Your task to perform on an android device: empty trash in the gmail app Image 0: 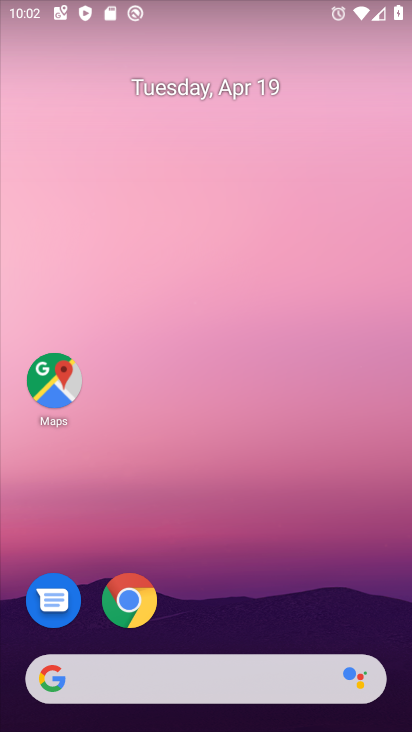
Step 0: drag from (303, 616) to (237, 192)
Your task to perform on an android device: empty trash in the gmail app Image 1: 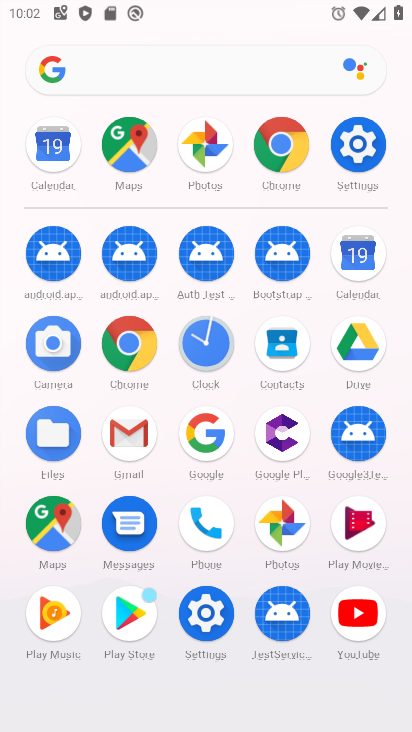
Step 1: click (127, 432)
Your task to perform on an android device: empty trash in the gmail app Image 2: 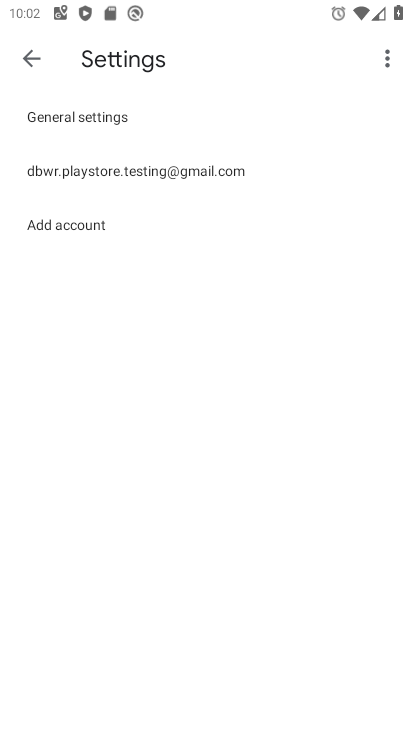
Step 2: click (27, 54)
Your task to perform on an android device: empty trash in the gmail app Image 3: 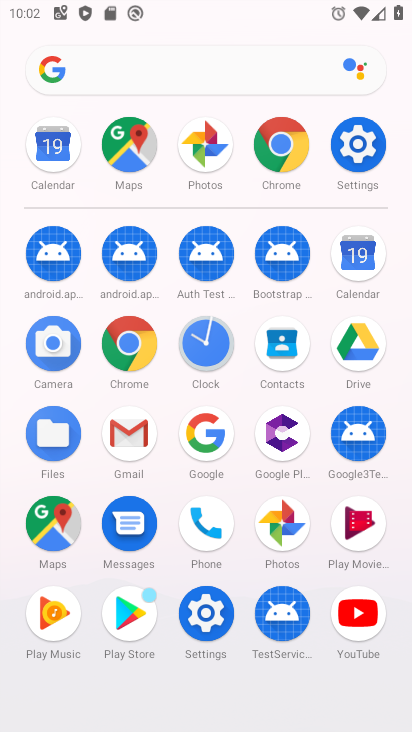
Step 3: click (133, 432)
Your task to perform on an android device: empty trash in the gmail app Image 4: 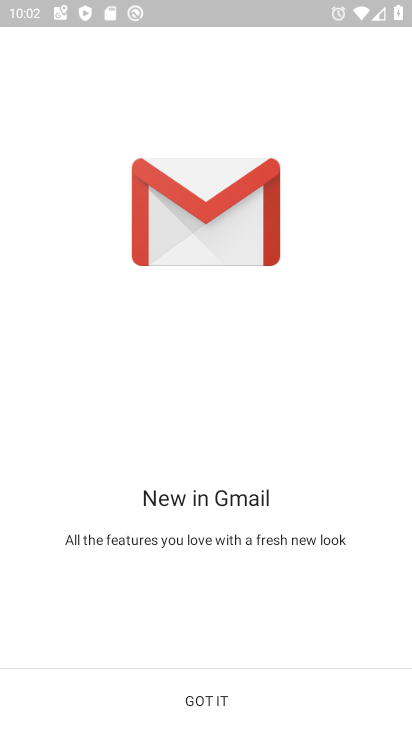
Step 4: click (250, 701)
Your task to perform on an android device: empty trash in the gmail app Image 5: 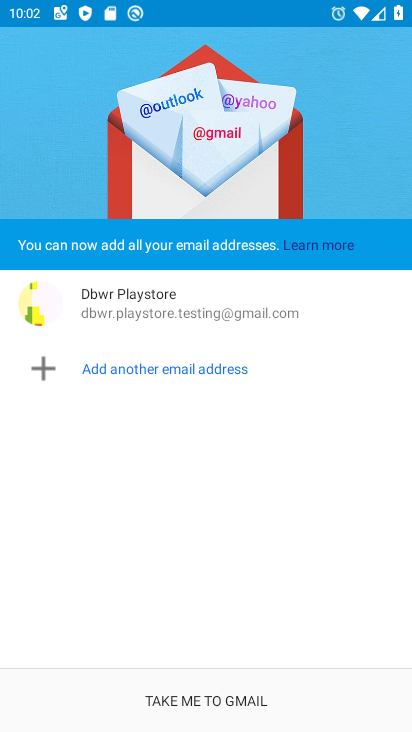
Step 5: click (250, 701)
Your task to perform on an android device: empty trash in the gmail app Image 6: 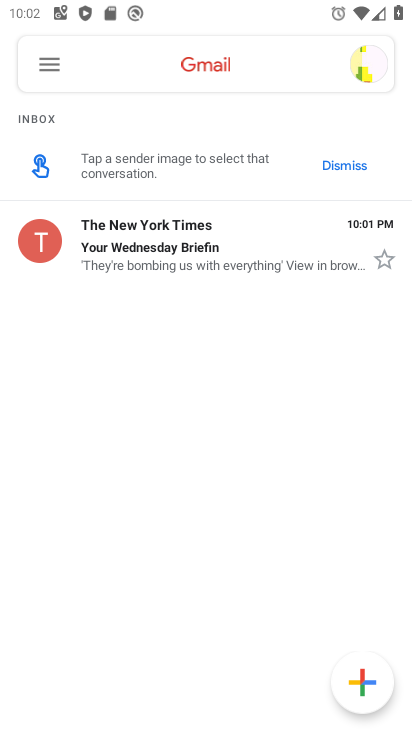
Step 6: click (54, 56)
Your task to perform on an android device: empty trash in the gmail app Image 7: 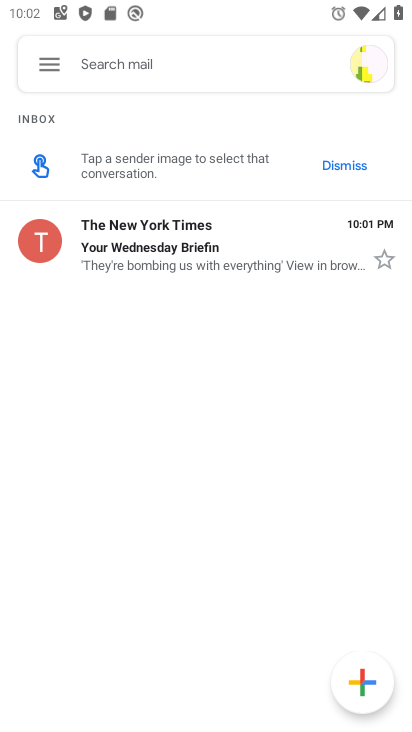
Step 7: click (43, 69)
Your task to perform on an android device: empty trash in the gmail app Image 8: 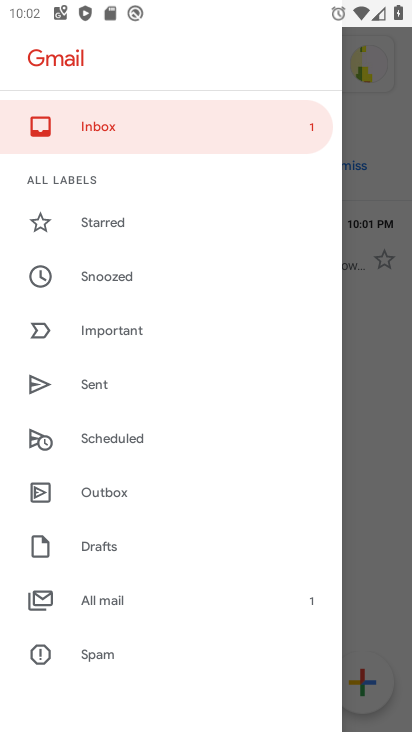
Step 8: drag from (145, 608) to (148, 388)
Your task to perform on an android device: empty trash in the gmail app Image 9: 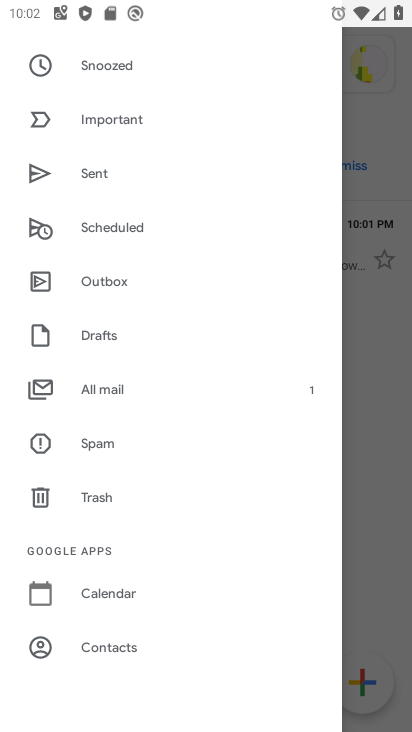
Step 9: click (95, 507)
Your task to perform on an android device: empty trash in the gmail app Image 10: 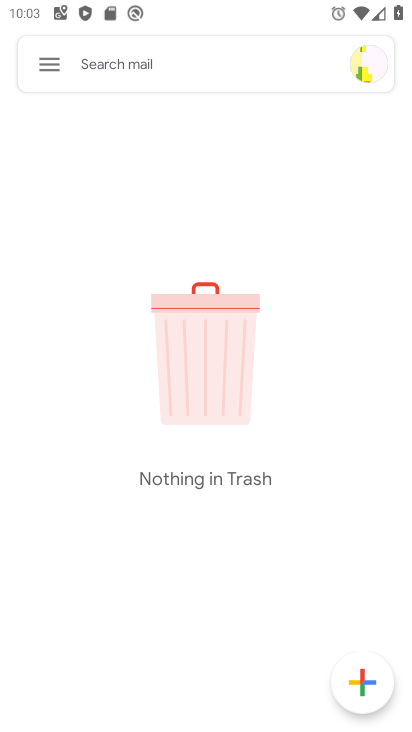
Step 10: task complete